Your task to perform on an android device: Open Google Maps and go to "Timeline" Image 0: 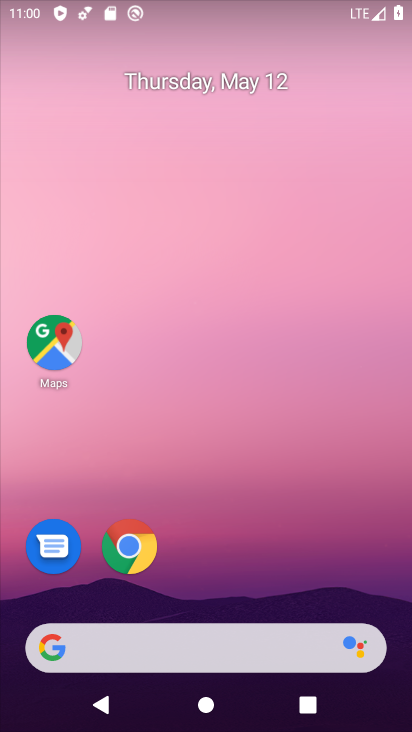
Step 0: drag from (179, 728) to (182, 98)
Your task to perform on an android device: Open Google Maps and go to "Timeline" Image 1: 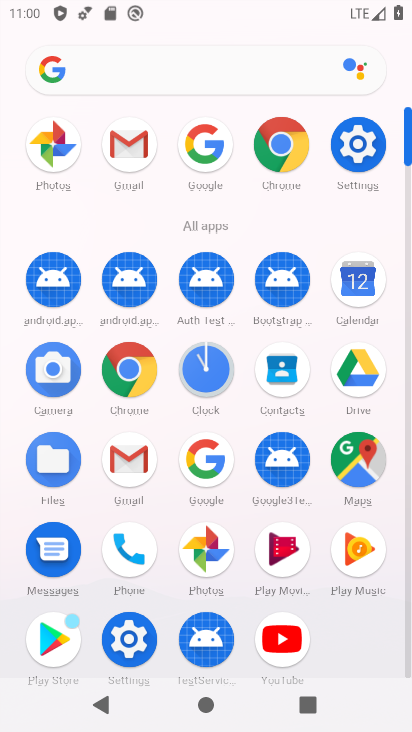
Step 1: click (357, 469)
Your task to perform on an android device: Open Google Maps and go to "Timeline" Image 2: 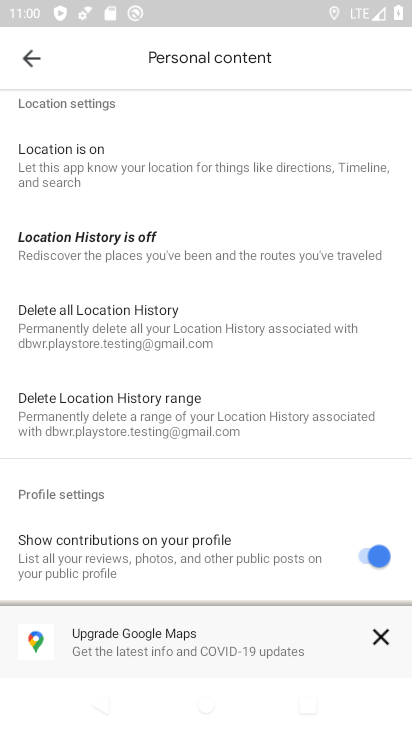
Step 2: drag from (272, 204) to (250, 467)
Your task to perform on an android device: Open Google Maps and go to "Timeline" Image 3: 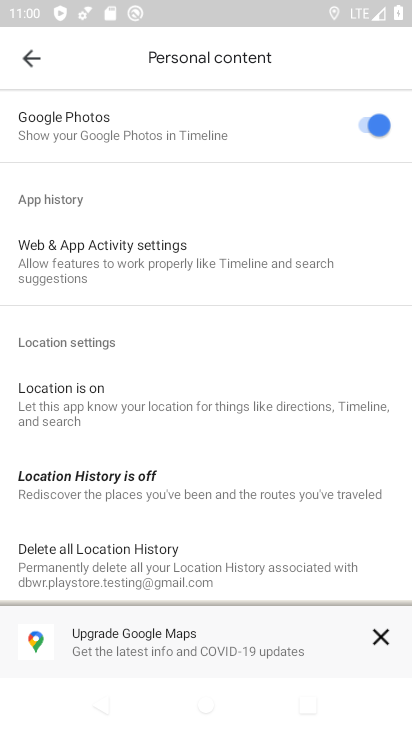
Step 3: click (31, 59)
Your task to perform on an android device: Open Google Maps and go to "Timeline" Image 4: 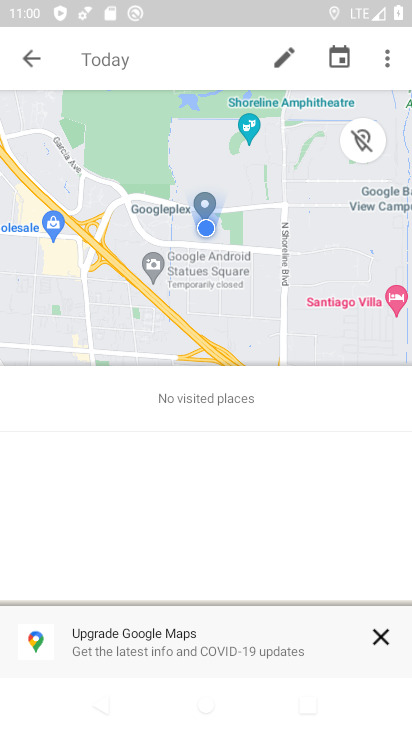
Step 4: click (31, 56)
Your task to perform on an android device: Open Google Maps and go to "Timeline" Image 5: 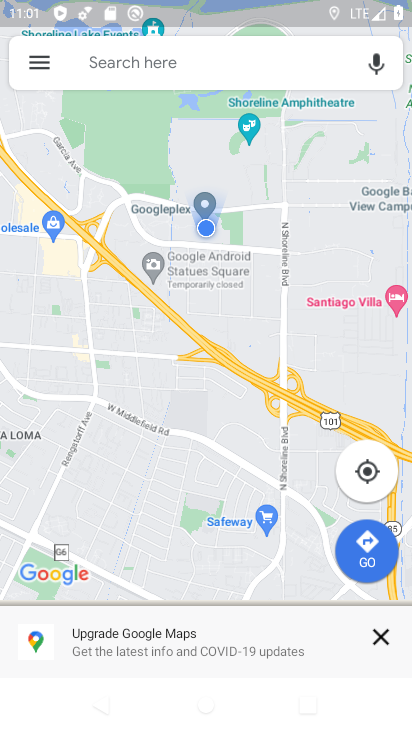
Step 5: click (34, 56)
Your task to perform on an android device: Open Google Maps and go to "Timeline" Image 6: 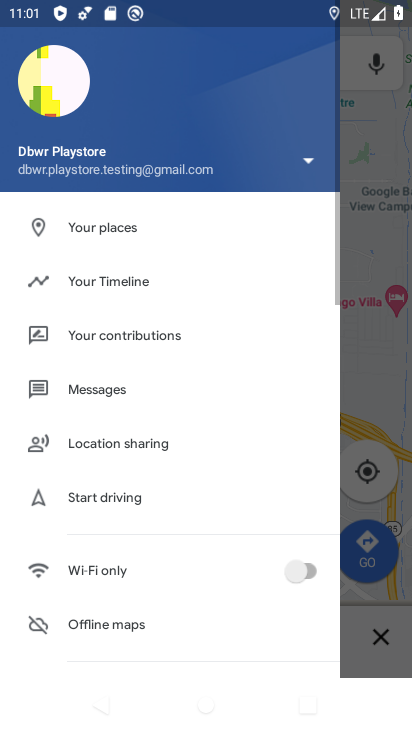
Step 6: click (87, 281)
Your task to perform on an android device: Open Google Maps and go to "Timeline" Image 7: 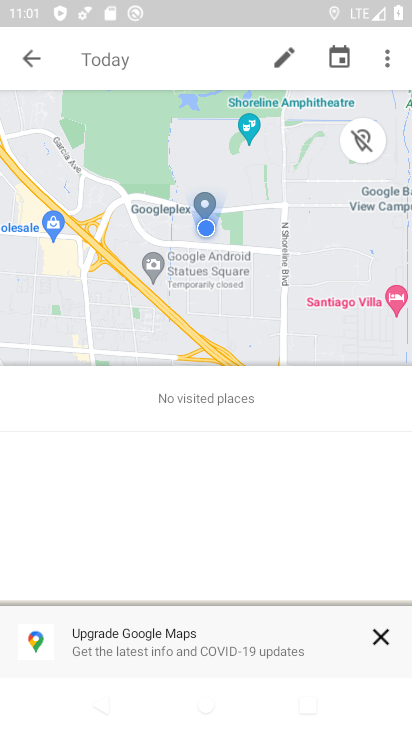
Step 7: task complete